Your task to perform on an android device: Search for vegetarian restaurants on Maps Image 0: 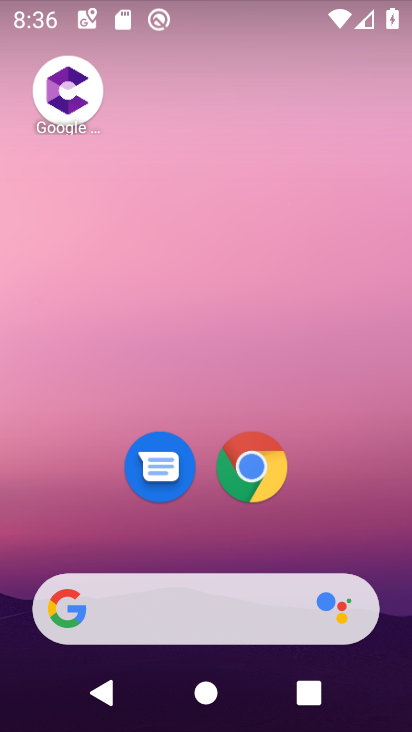
Step 0: press home button
Your task to perform on an android device: Search for vegetarian restaurants on Maps Image 1: 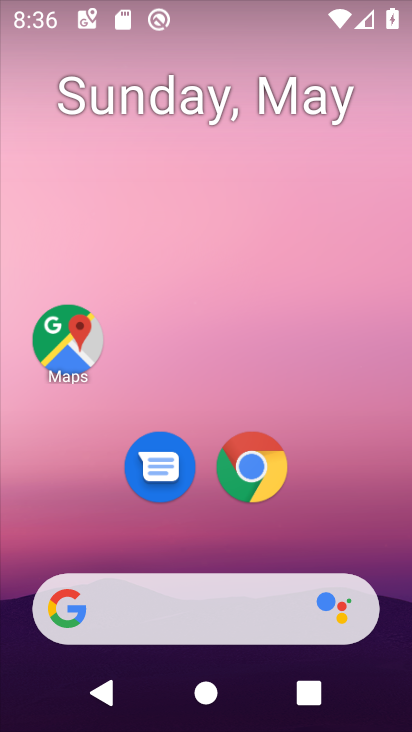
Step 1: drag from (374, 495) to (346, 115)
Your task to perform on an android device: Search for vegetarian restaurants on Maps Image 2: 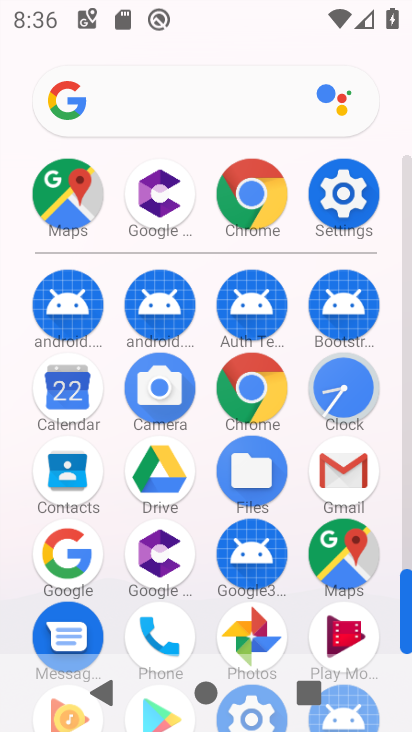
Step 2: click (343, 566)
Your task to perform on an android device: Search for vegetarian restaurants on Maps Image 3: 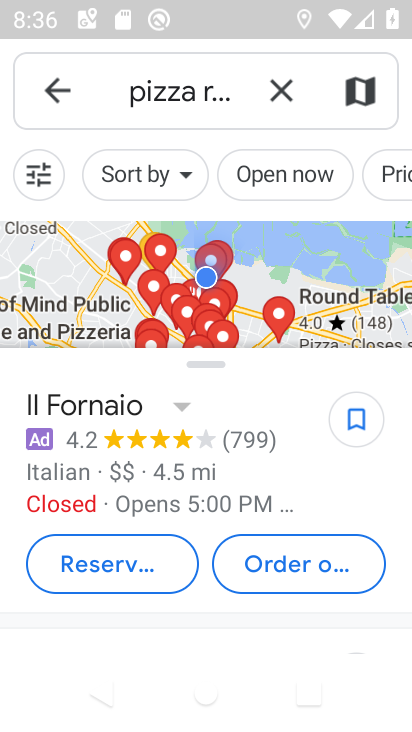
Step 3: click (287, 89)
Your task to perform on an android device: Search for vegetarian restaurants on Maps Image 4: 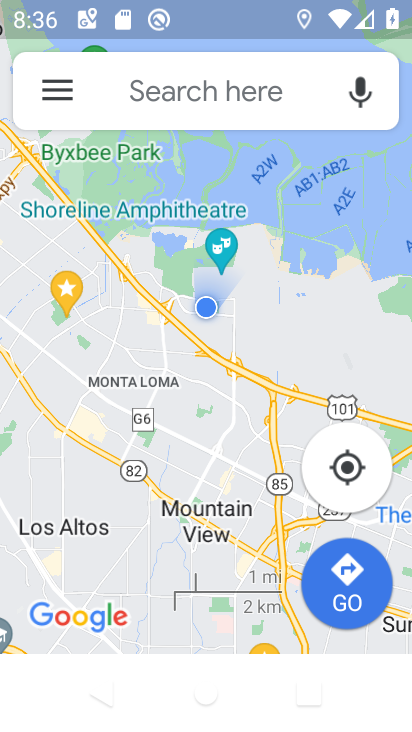
Step 4: click (257, 84)
Your task to perform on an android device: Search for vegetarian restaurants on Maps Image 5: 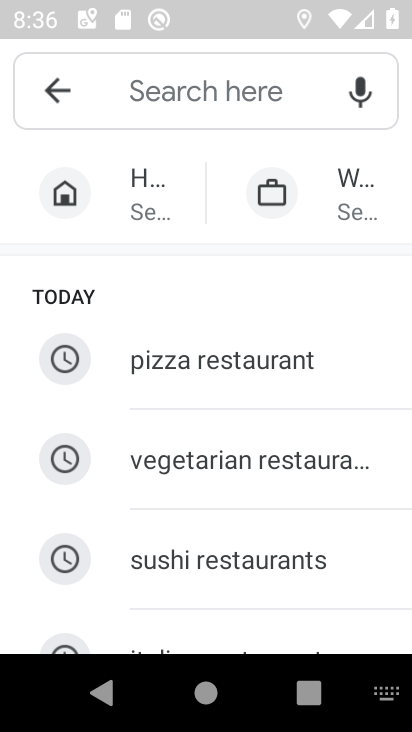
Step 5: click (255, 457)
Your task to perform on an android device: Search for vegetarian restaurants on Maps Image 6: 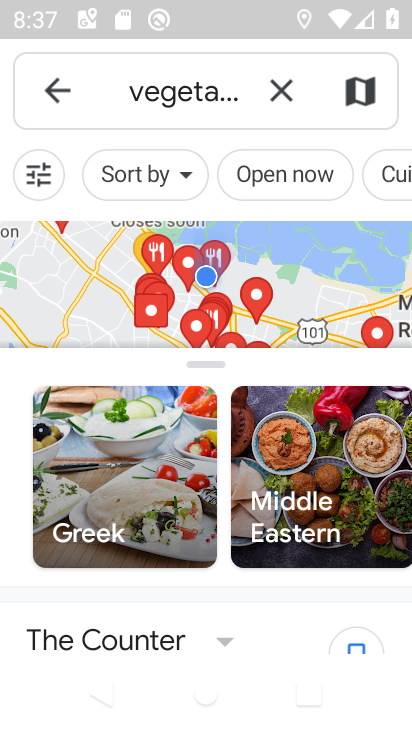
Step 6: task complete